Your task to perform on an android device: What is the news today? Image 0: 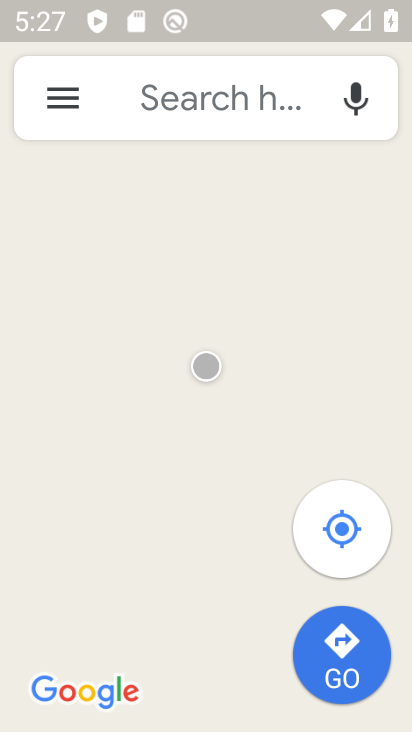
Step 0: press back button
Your task to perform on an android device: What is the news today? Image 1: 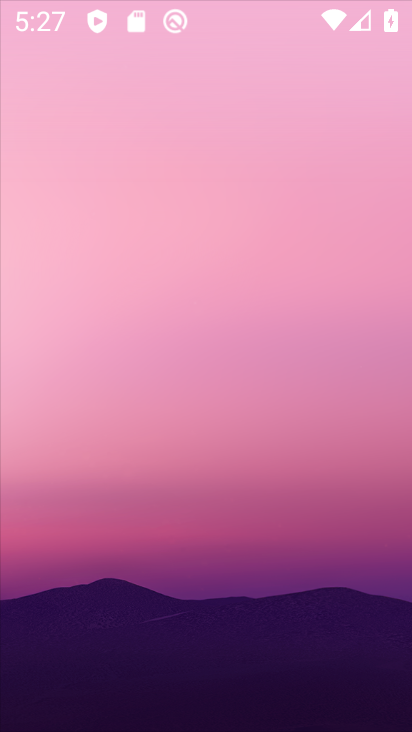
Step 1: press home button
Your task to perform on an android device: What is the news today? Image 2: 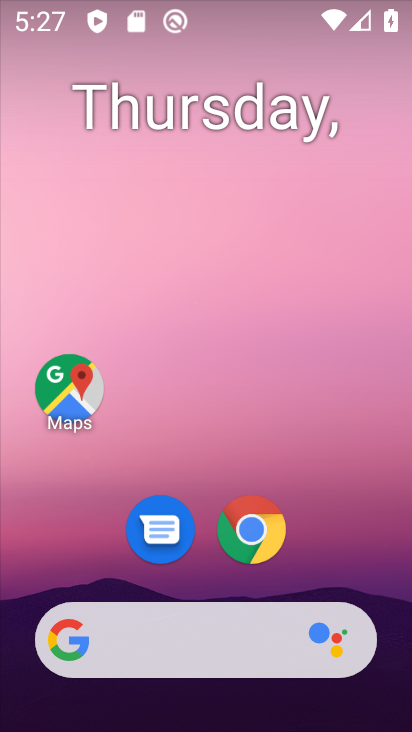
Step 2: drag from (342, 531) to (217, 63)
Your task to perform on an android device: What is the news today? Image 3: 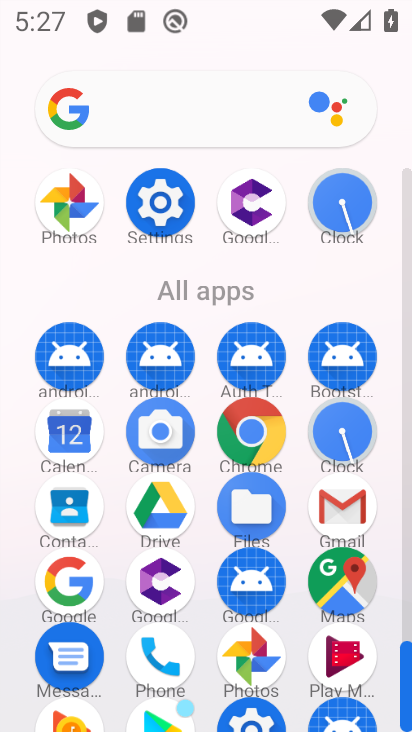
Step 3: click (64, 576)
Your task to perform on an android device: What is the news today? Image 4: 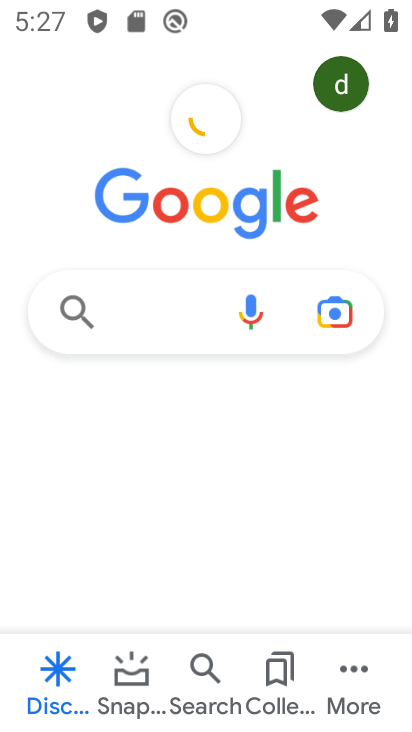
Step 4: click (127, 303)
Your task to perform on an android device: What is the news today? Image 5: 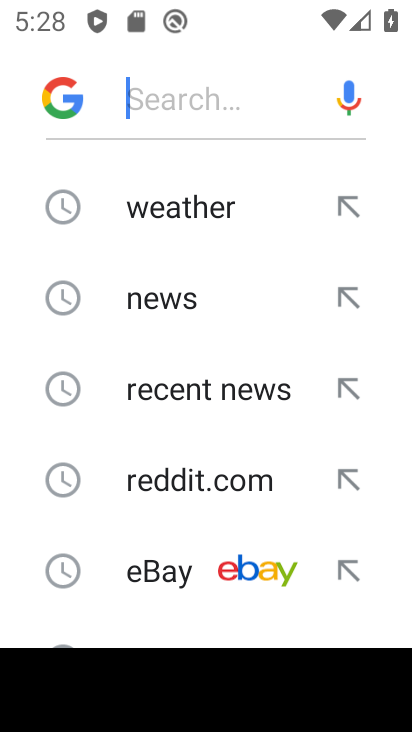
Step 5: type "today news"
Your task to perform on an android device: What is the news today? Image 6: 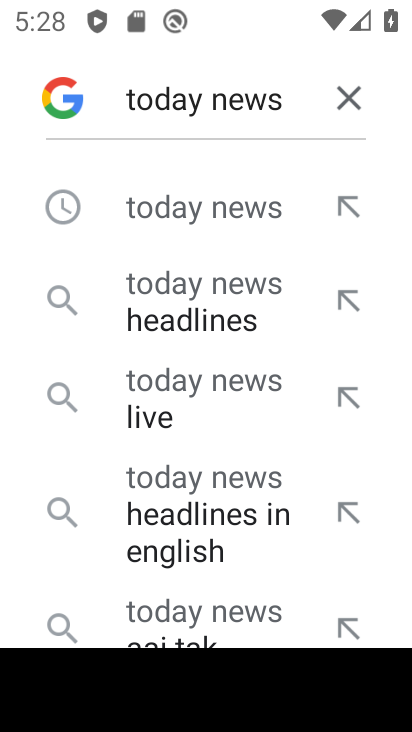
Step 6: click (193, 204)
Your task to perform on an android device: What is the news today? Image 7: 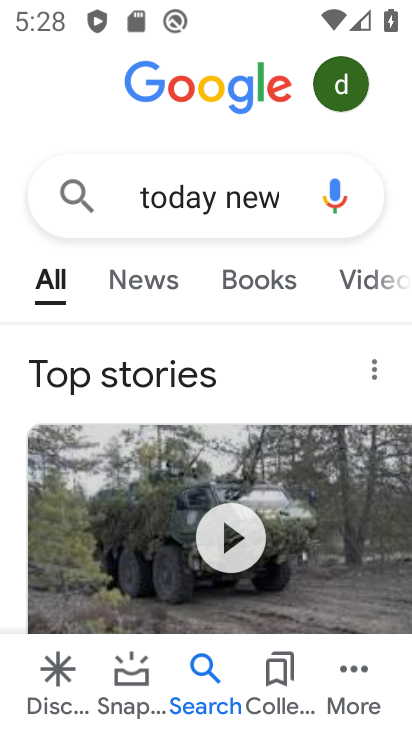
Step 7: task complete